Your task to perform on an android device: Go to sound settings Image 0: 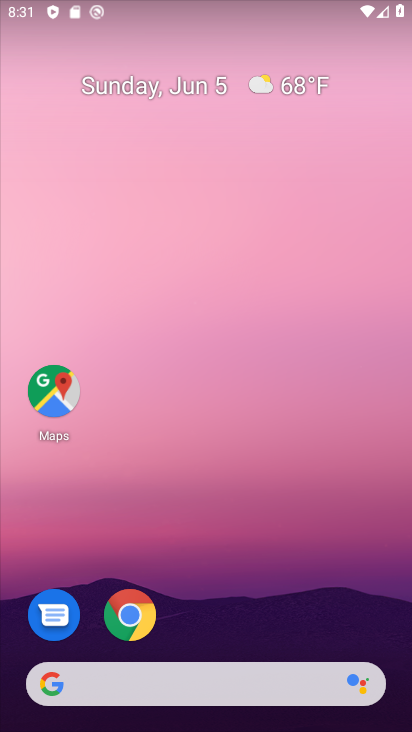
Step 0: drag from (152, 723) to (161, 205)
Your task to perform on an android device: Go to sound settings Image 1: 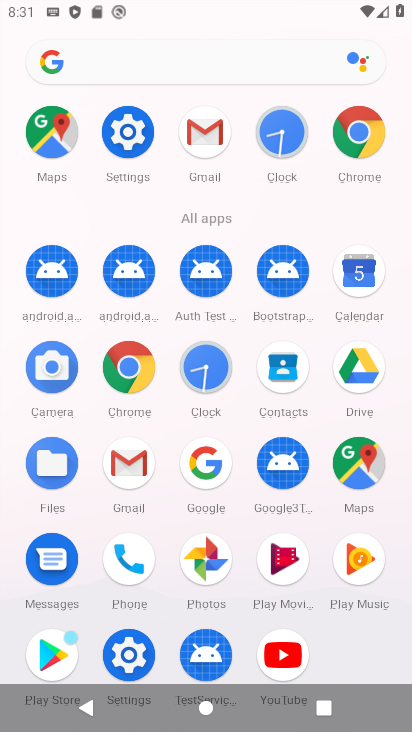
Step 1: click (143, 152)
Your task to perform on an android device: Go to sound settings Image 2: 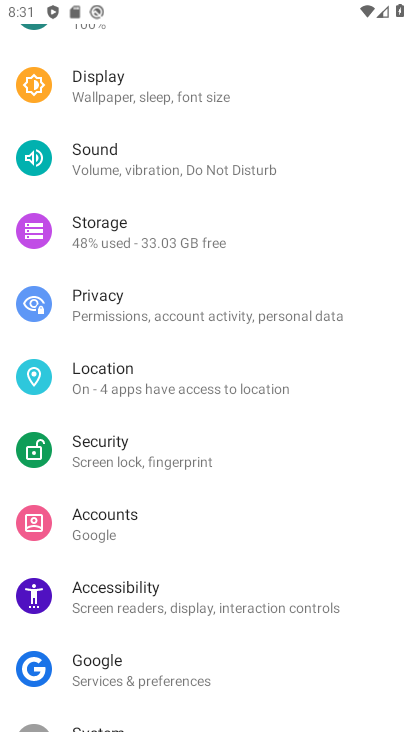
Step 2: click (162, 158)
Your task to perform on an android device: Go to sound settings Image 3: 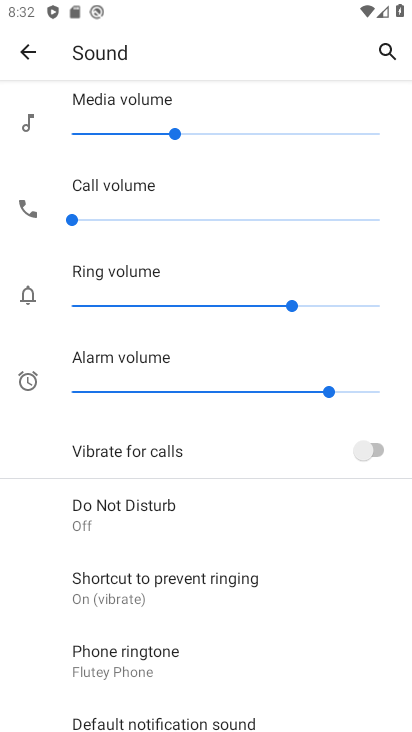
Step 3: task complete